Your task to perform on an android device: Show me popular games on the Play Store Image 0: 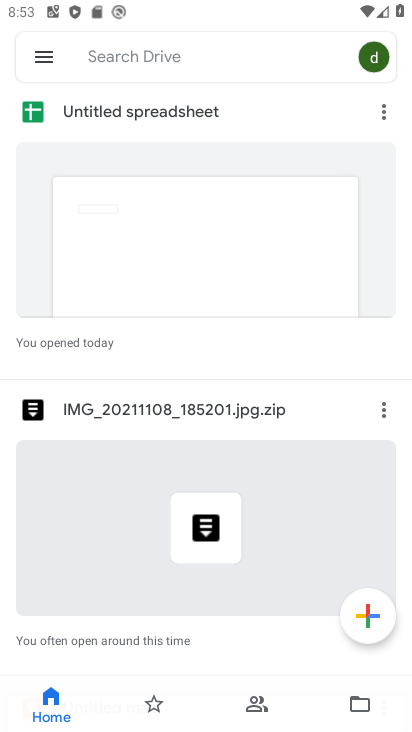
Step 0: press home button
Your task to perform on an android device: Show me popular games on the Play Store Image 1: 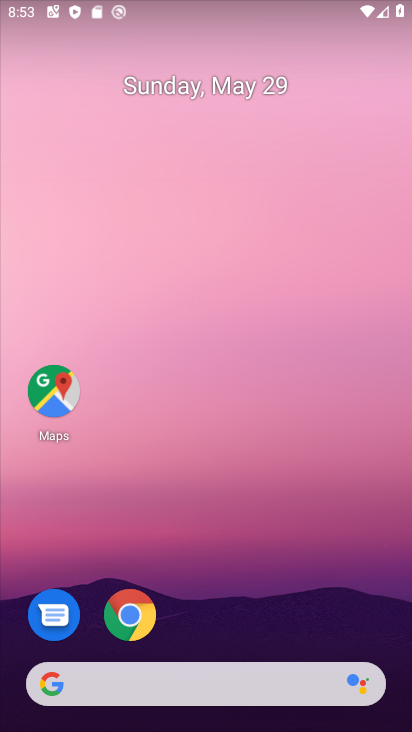
Step 1: drag from (251, 641) to (266, 0)
Your task to perform on an android device: Show me popular games on the Play Store Image 2: 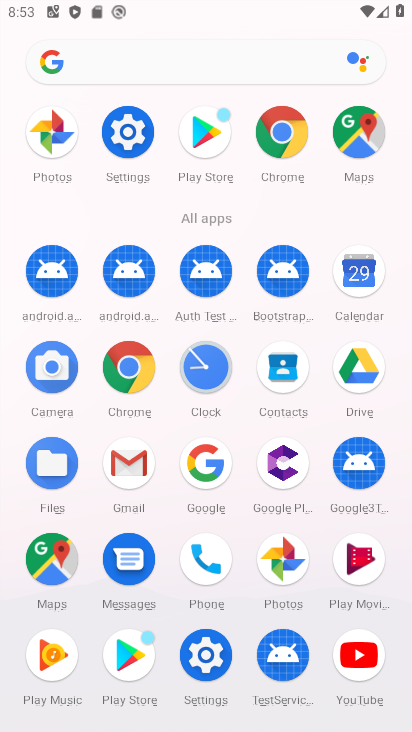
Step 2: click (126, 640)
Your task to perform on an android device: Show me popular games on the Play Store Image 3: 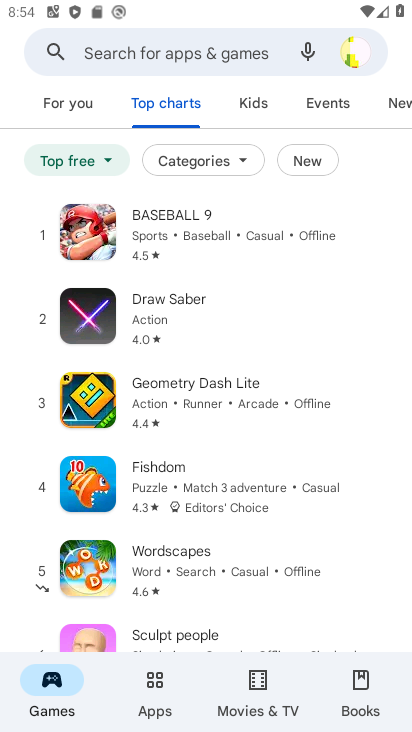
Step 3: task complete